Your task to perform on an android device: Open my contact list Image 0: 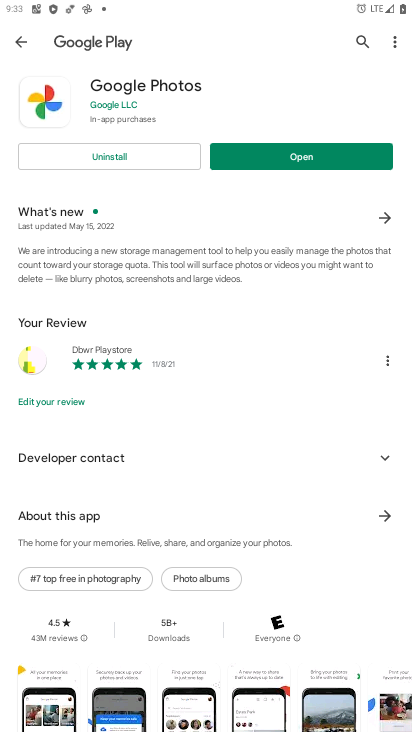
Step 0: press home button
Your task to perform on an android device: Open my contact list Image 1: 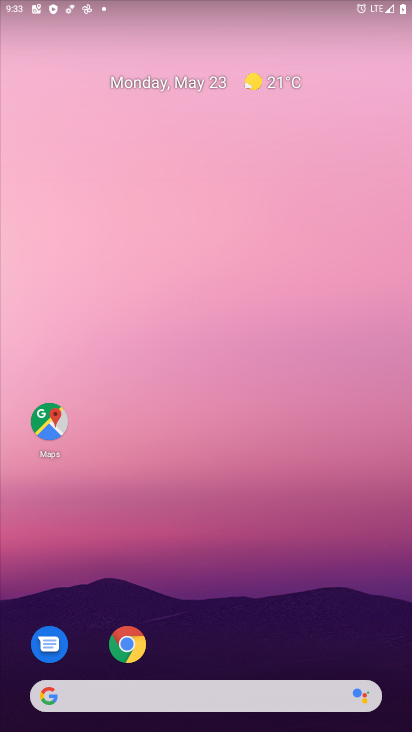
Step 1: drag from (270, 724) to (282, 305)
Your task to perform on an android device: Open my contact list Image 2: 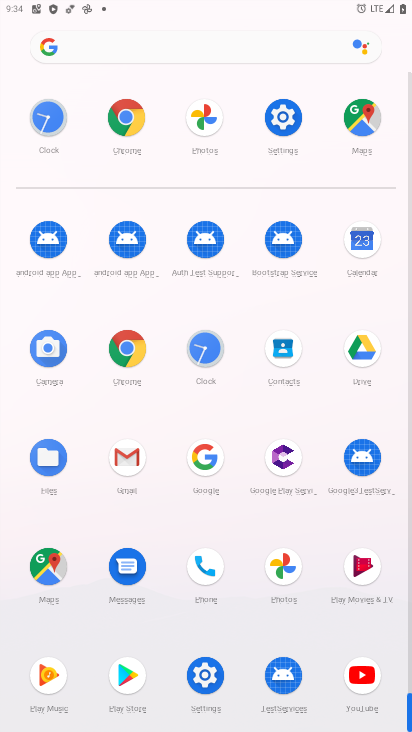
Step 2: click (270, 359)
Your task to perform on an android device: Open my contact list Image 3: 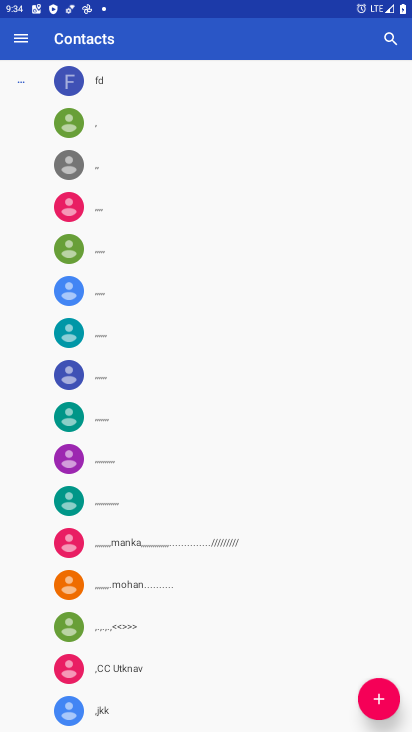
Step 3: task complete